Your task to perform on an android device: turn off translation in the chrome app Image 0: 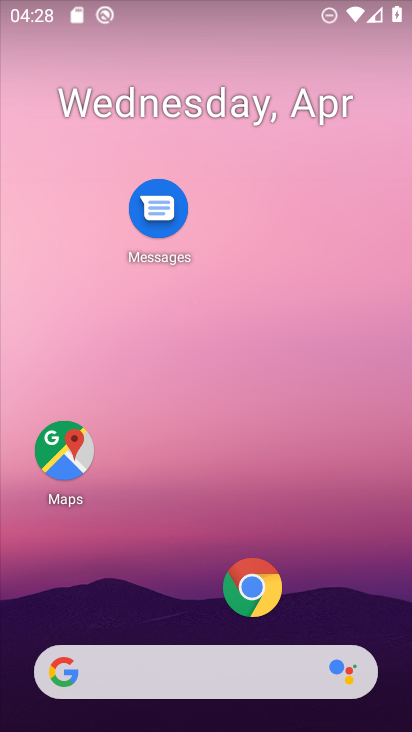
Step 0: click (244, 590)
Your task to perform on an android device: turn off translation in the chrome app Image 1: 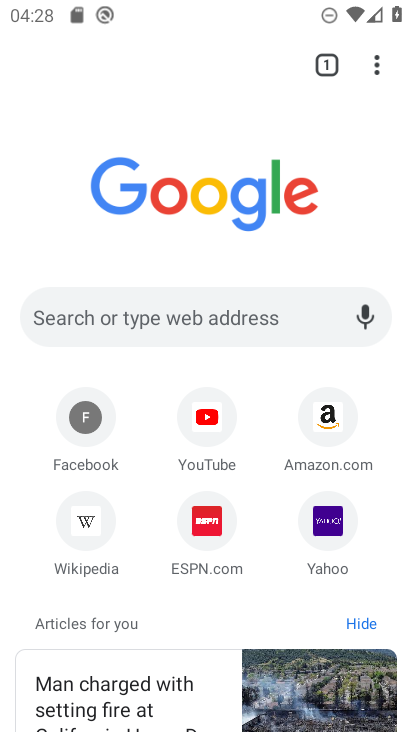
Step 1: click (380, 57)
Your task to perform on an android device: turn off translation in the chrome app Image 2: 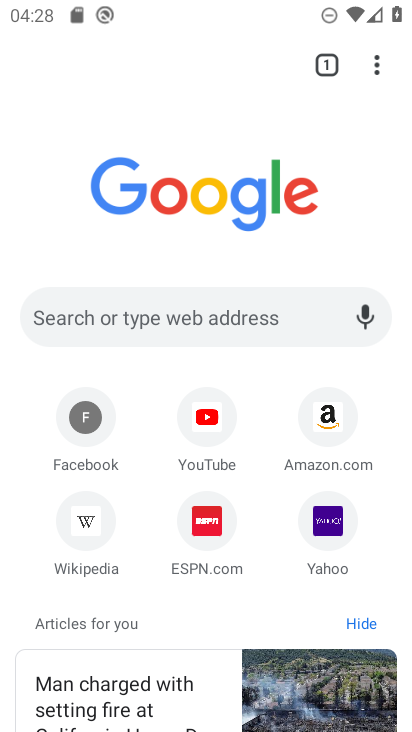
Step 2: drag from (374, 67) to (209, 539)
Your task to perform on an android device: turn off translation in the chrome app Image 3: 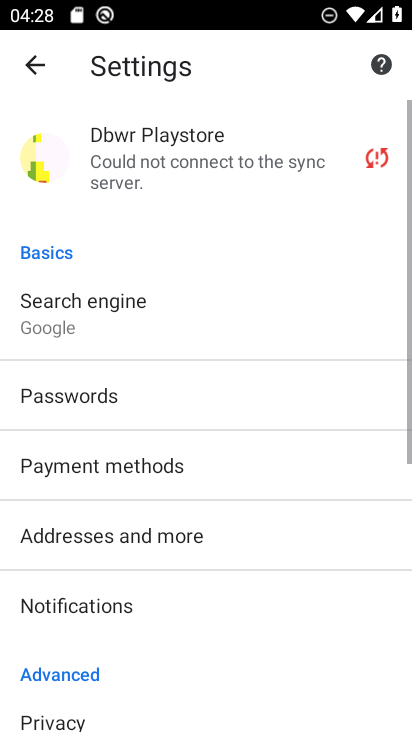
Step 3: drag from (168, 612) to (203, 306)
Your task to perform on an android device: turn off translation in the chrome app Image 4: 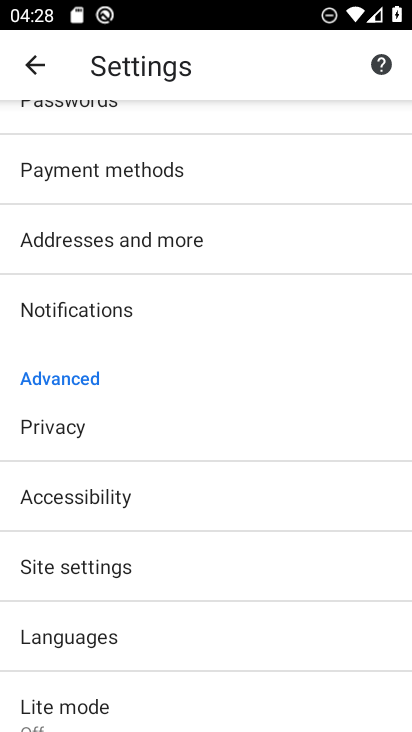
Step 4: click (118, 644)
Your task to perform on an android device: turn off translation in the chrome app Image 5: 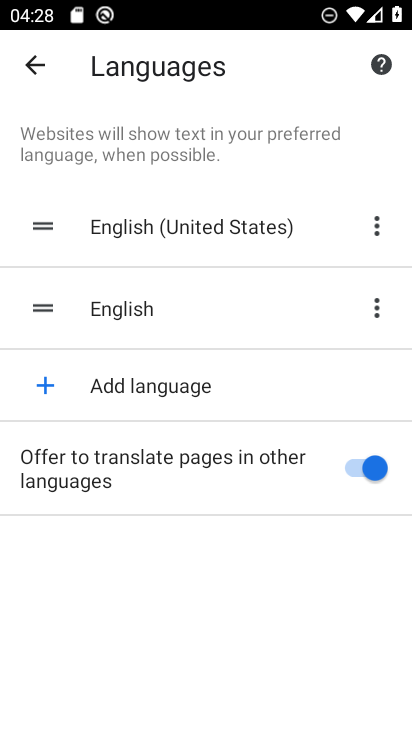
Step 5: click (353, 468)
Your task to perform on an android device: turn off translation in the chrome app Image 6: 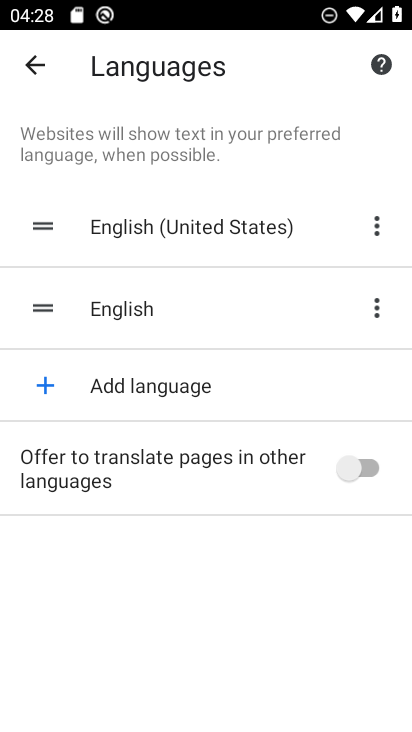
Step 6: task complete